Your task to perform on an android device: open device folders in google photos Image 0: 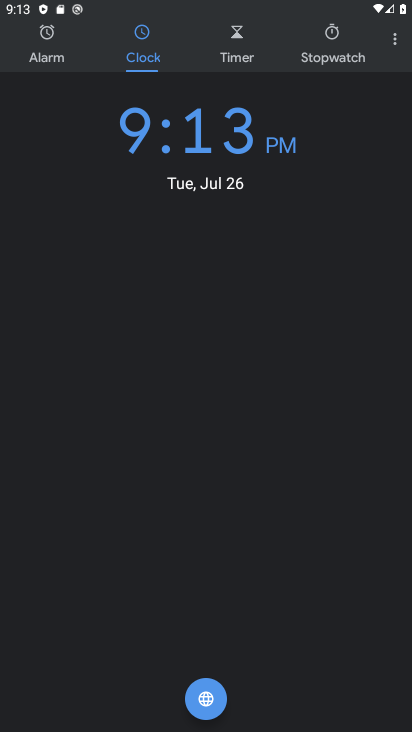
Step 0: press home button
Your task to perform on an android device: open device folders in google photos Image 1: 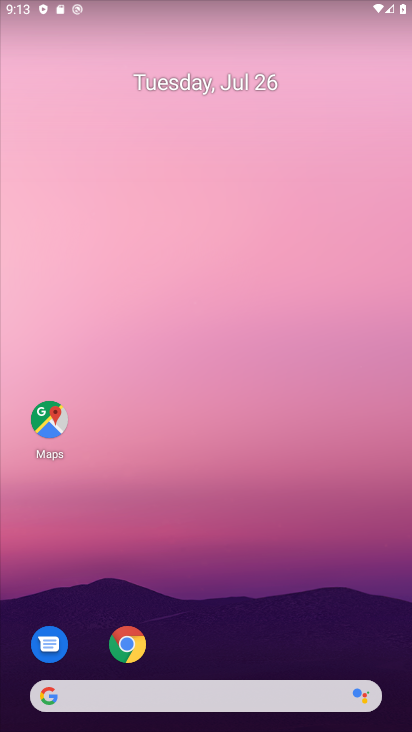
Step 1: drag from (219, 617) to (215, 326)
Your task to perform on an android device: open device folders in google photos Image 2: 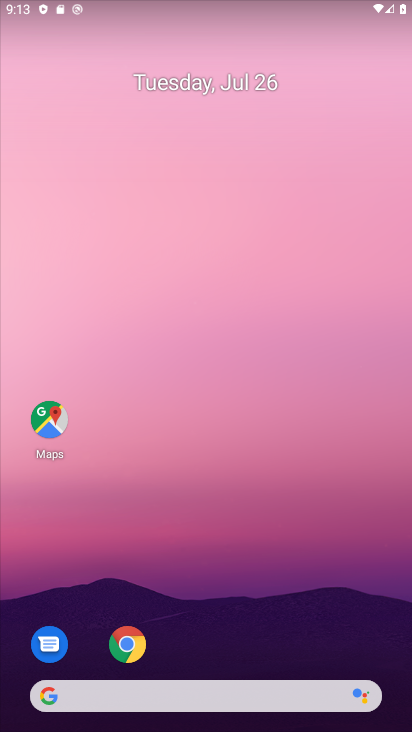
Step 2: drag from (196, 628) to (193, 34)
Your task to perform on an android device: open device folders in google photos Image 3: 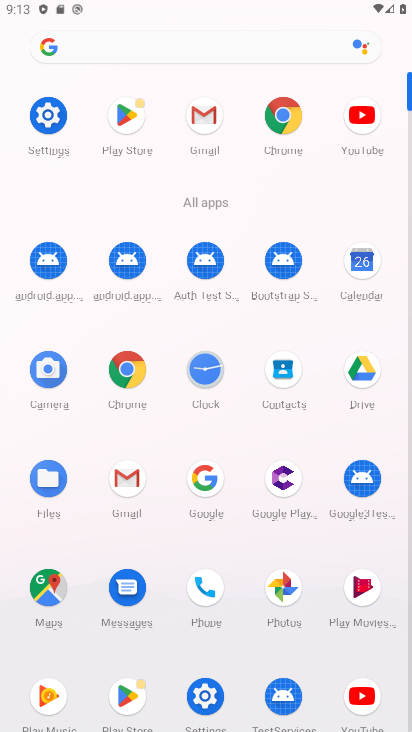
Step 3: click (290, 590)
Your task to perform on an android device: open device folders in google photos Image 4: 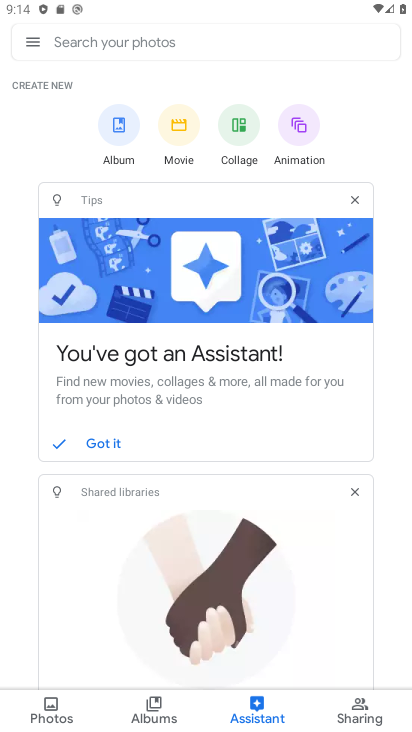
Step 4: click (25, 47)
Your task to perform on an android device: open device folders in google photos Image 5: 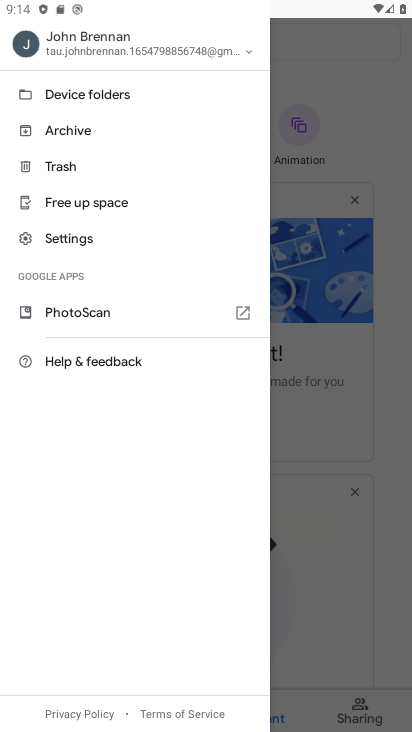
Step 5: click (71, 87)
Your task to perform on an android device: open device folders in google photos Image 6: 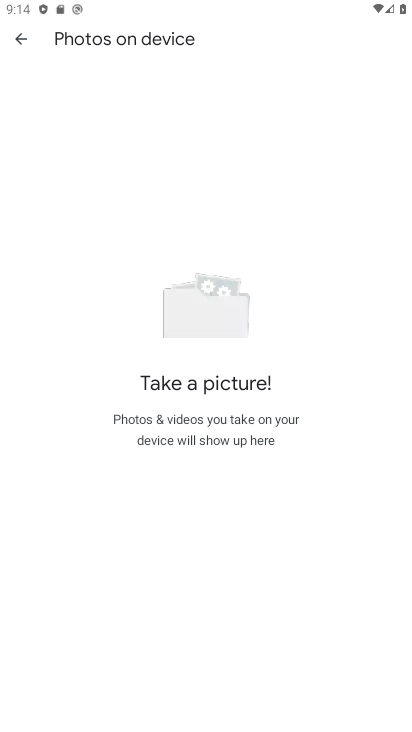
Step 6: task complete